Your task to perform on an android device: visit the assistant section in the google photos Image 0: 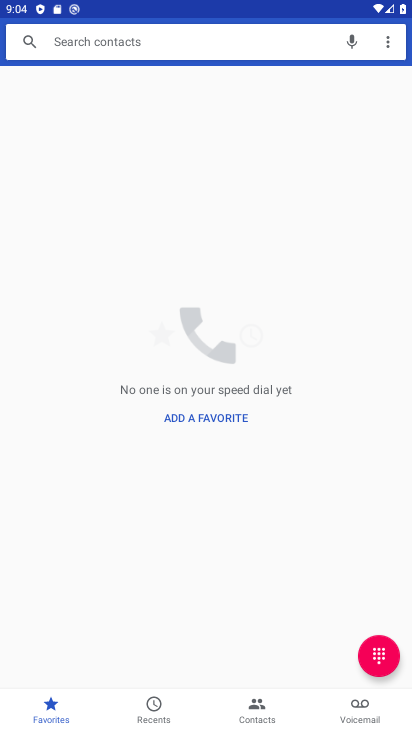
Step 0: press home button
Your task to perform on an android device: visit the assistant section in the google photos Image 1: 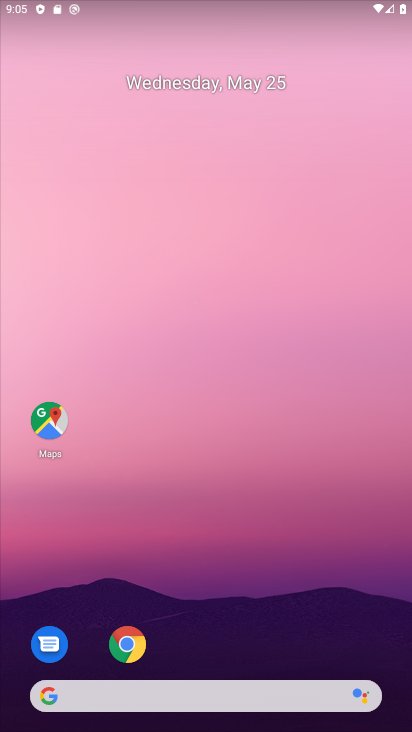
Step 1: drag from (297, 644) to (282, 10)
Your task to perform on an android device: visit the assistant section in the google photos Image 2: 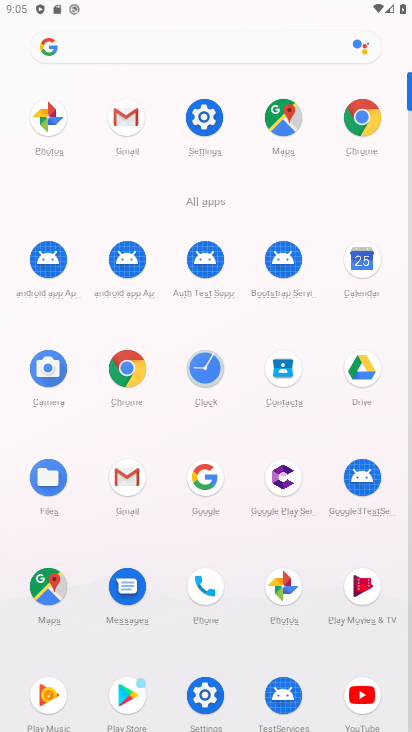
Step 2: click (278, 592)
Your task to perform on an android device: visit the assistant section in the google photos Image 3: 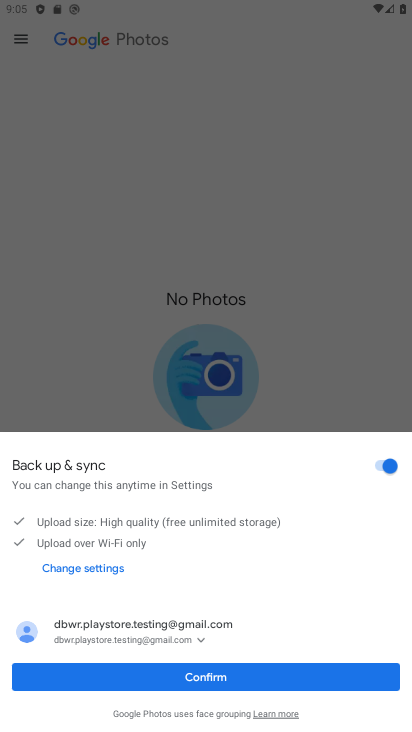
Step 3: click (175, 683)
Your task to perform on an android device: visit the assistant section in the google photos Image 4: 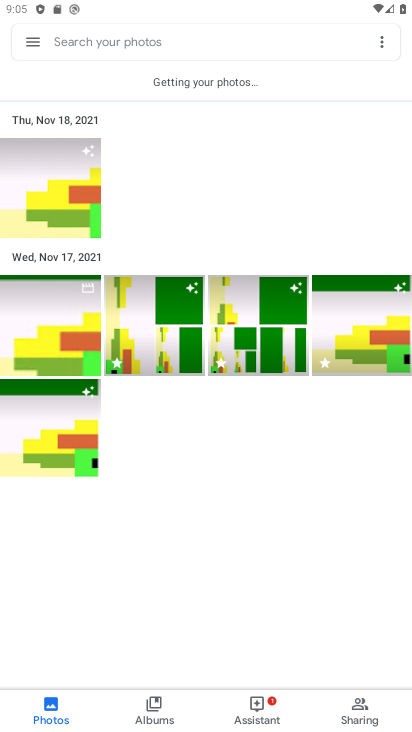
Step 4: click (260, 724)
Your task to perform on an android device: visit the assistant section in the google photos Image 5: 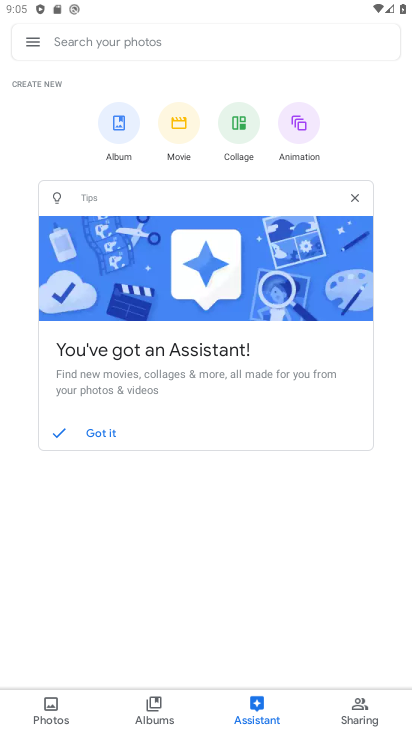
Step 5: task complete